Your task to perform on an android device: toggle improve location accuracy Image 0: 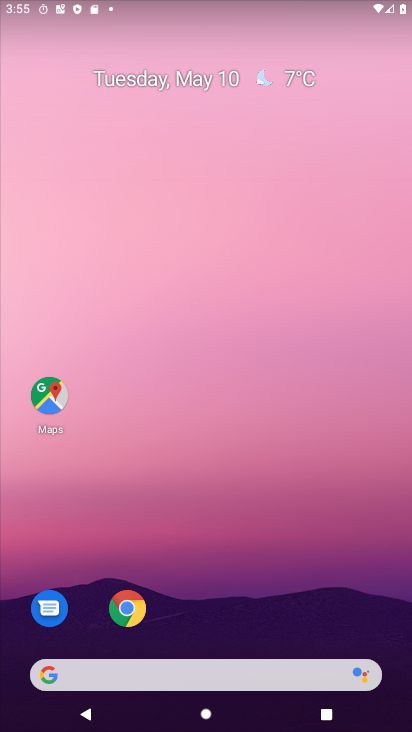
Step 0: drag from (324, 634) to (371, 19)
Your task to perform on an android device: toggle improve location accuracy Image 1: 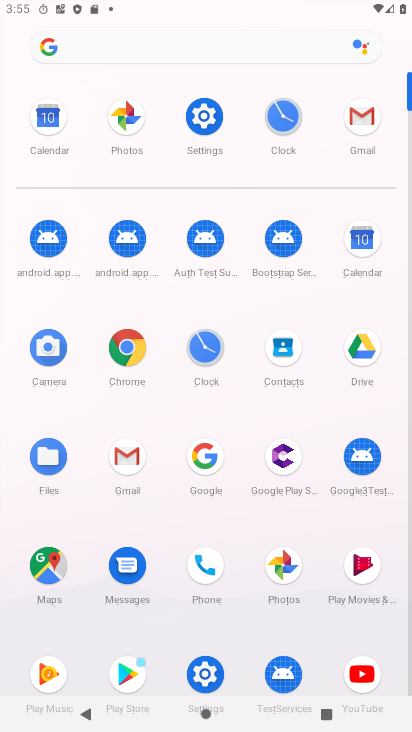
Step 1: click (202, 132)
Your task to perform on an android device: toggle improve location accuracy Image 2: 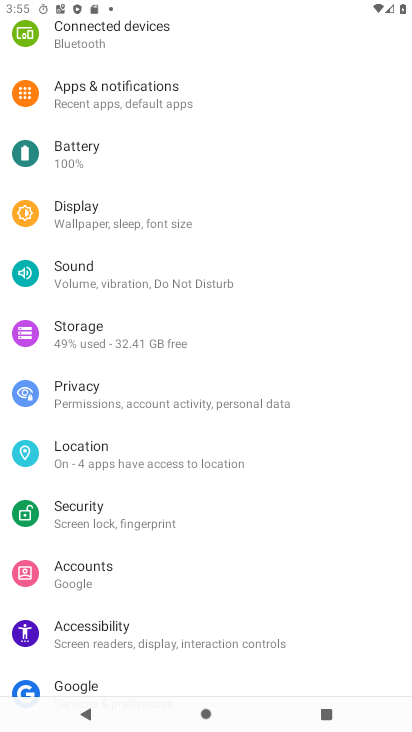
Step 2: click (115, 462)
Your task to perform on an android device: toggle improve location accuracy Image 3: 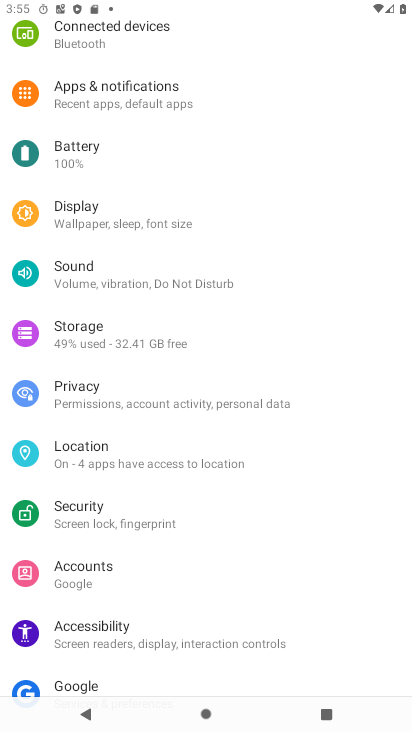
Step 3: click (74, 454)
Your task to perform on an android device: toggle improve location accuracy Image 4: 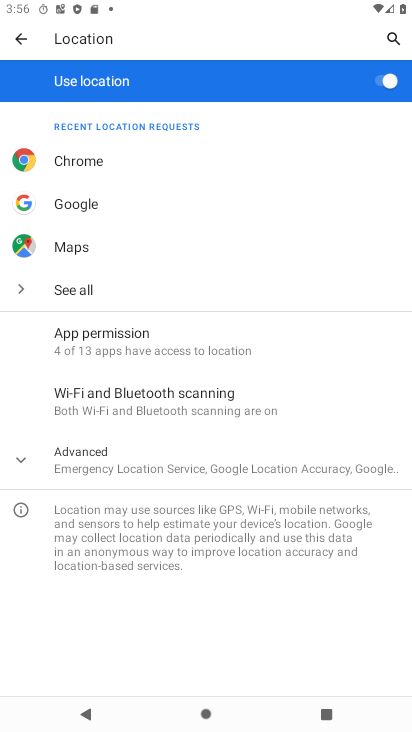
Step 4: click (22, 467)
Your task to perform on an android device: toggle improve location accuracy Image 5: 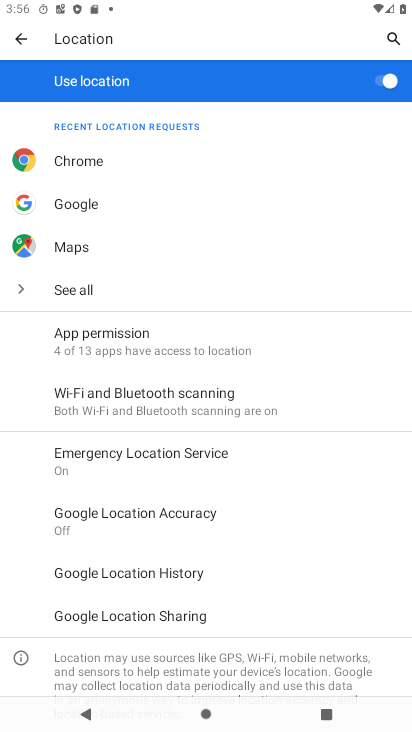
Step 5: click (138, 519)
Your task to perform on an android device: toggle improve location accuracy Image 6: 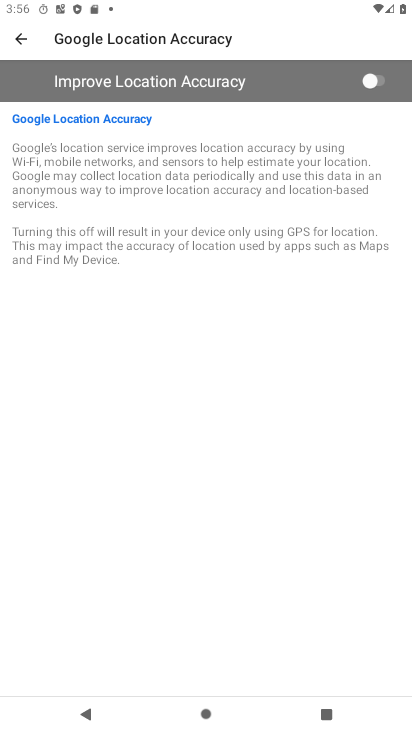
Step 6: click (368, 86)
Your task to perform on an android device: toggle improve location accuracy Image 7: 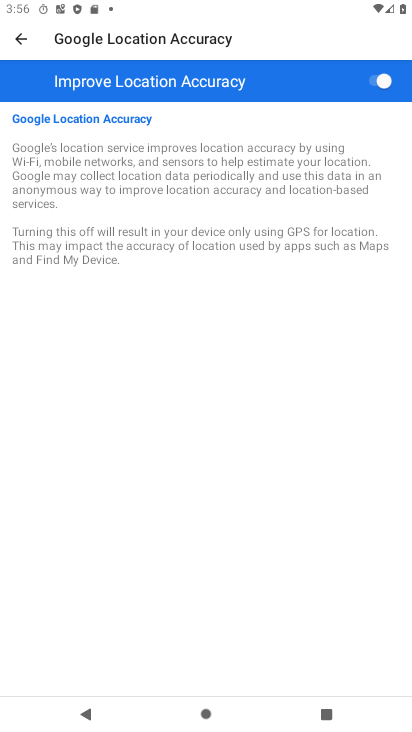
Step 7: task complete